Your task to perform on an android device: see creations saved in the google photos Image 0: 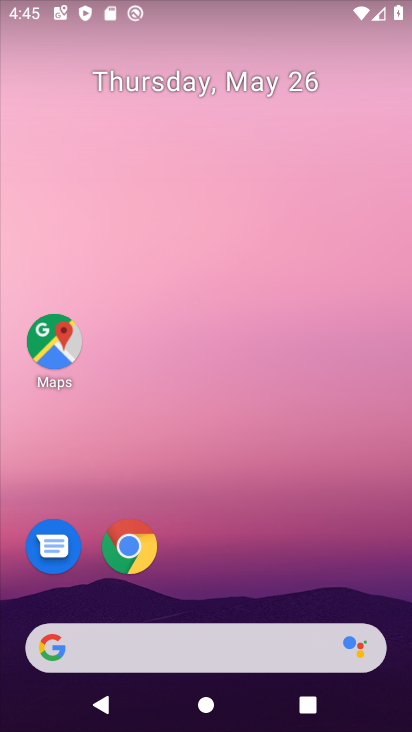
Step 0: drag from (250, 587) to (206, 168)
Your task to perform on an android device: see creations saved in the google photos Image 1: 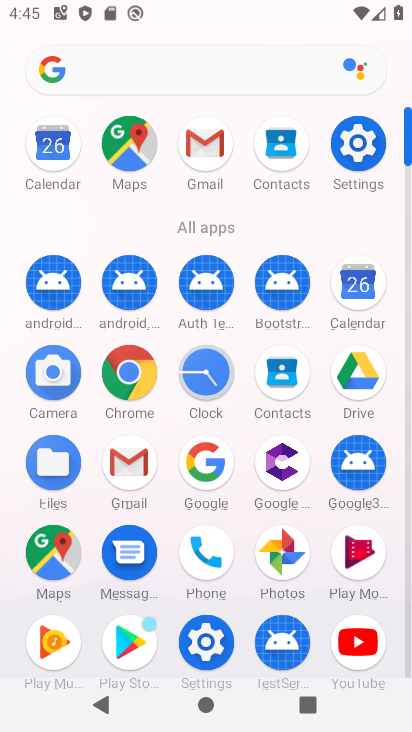
Step 1: click (280, 555)
Your task to perform on an android device: see creations saved in the google photos Image 2: 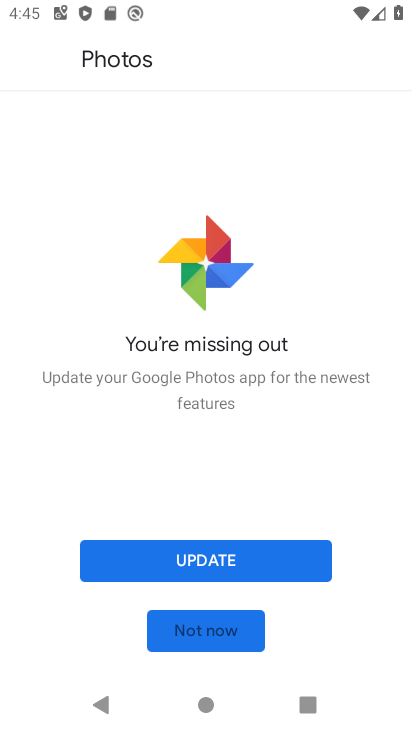
Step 2: click (222, 563)
Your task to perform on an android device: see creations saved in the google photos Image 3: 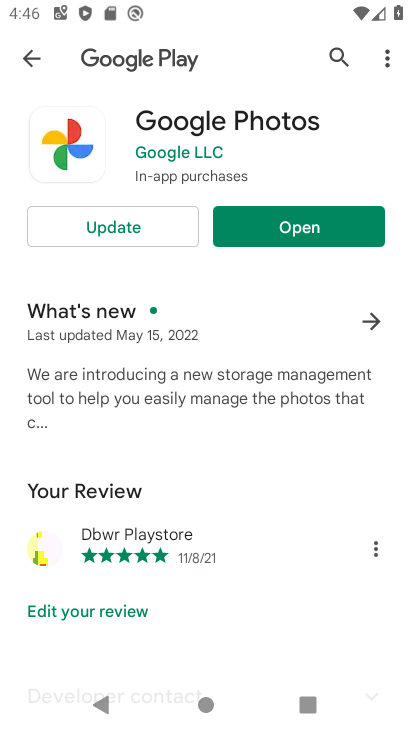
Step 3: click (170, 235)
Your task to perform on an android device: see creations saved in the google photos Image 4: 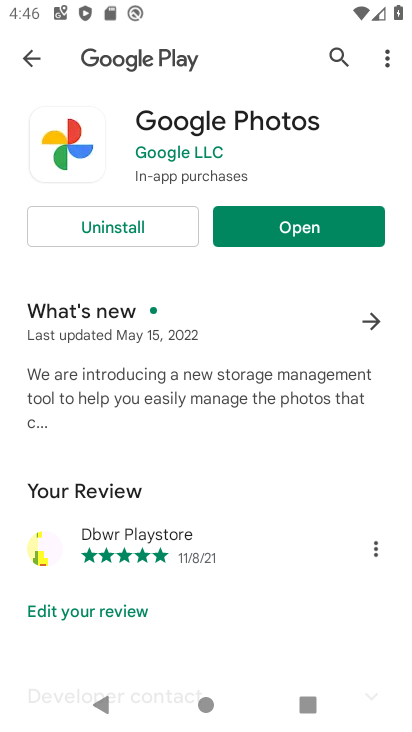
Step 4: click (304, 240)
Your task to perform on an android device: see creations saved in the google photos Image 5: 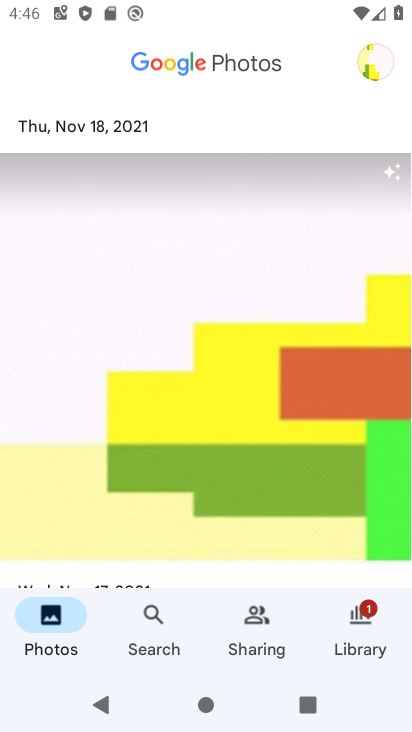
Step 5: click (168, 632)
Your task to perform on an android device: see creations saved in the google photos Image 6: 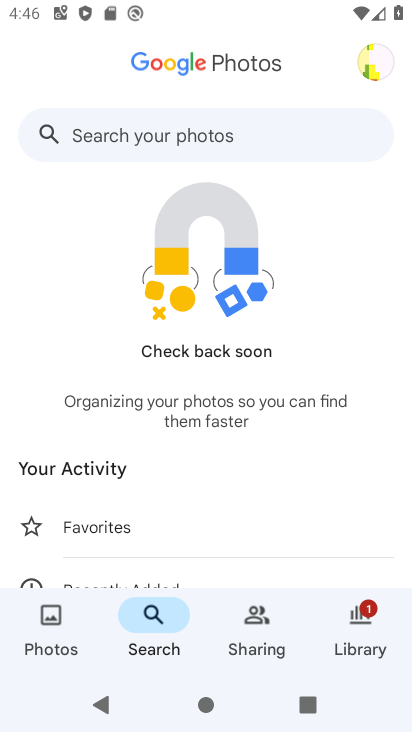
Step 6: click (173, 134)
Your task to perform on an android device: see creations saved in the google photos Image 7: 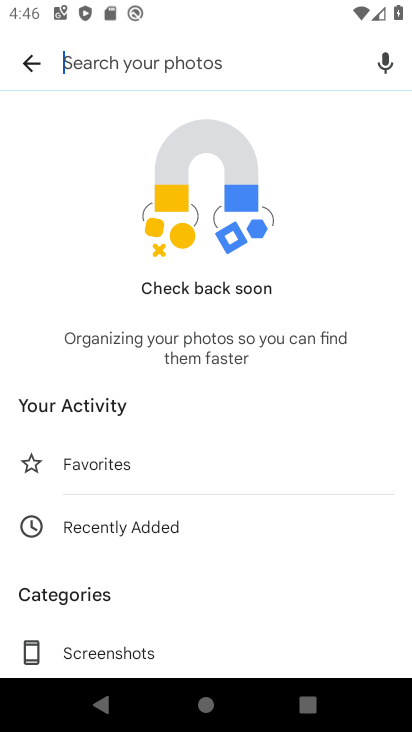
Step 7: drag from (149, 585) to (82, 214)
Your task to perform on an android device: see creations saved in the google photos Image 8: 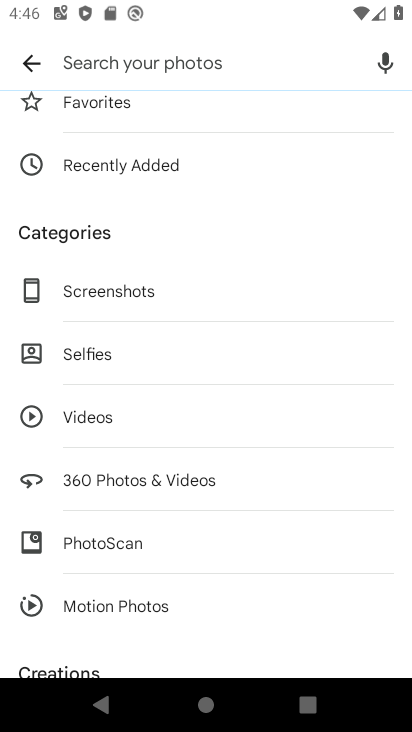
Step 8: drag from (116, 526) to (110, 229)
Your task to perform on an android device: see creations saved in the google photos Image 9: 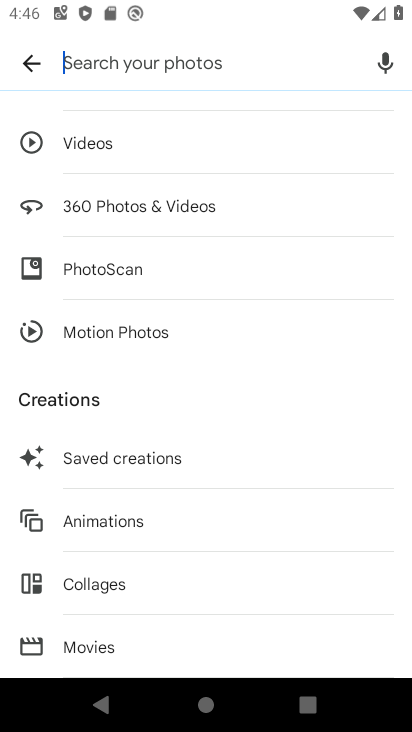
Step 9: click (166, 448)
Your task to perform on an android device: see creations saved in the google photos Image 10: 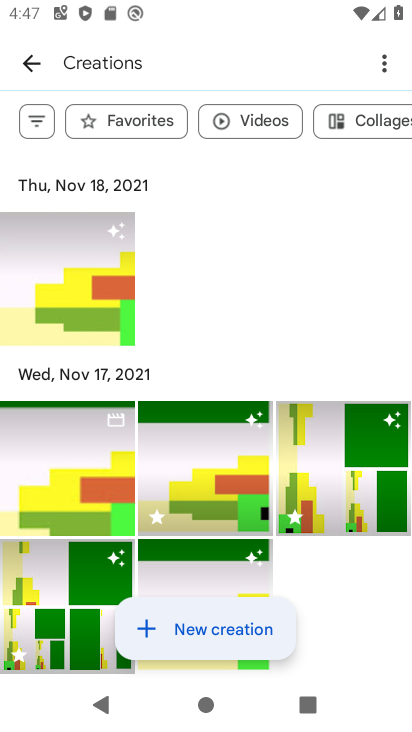
Step 10: task complete